Your task to perform on an android device: Search for sony triple a on ebay.com, select the first entry, and add it to the cart. Image 0: 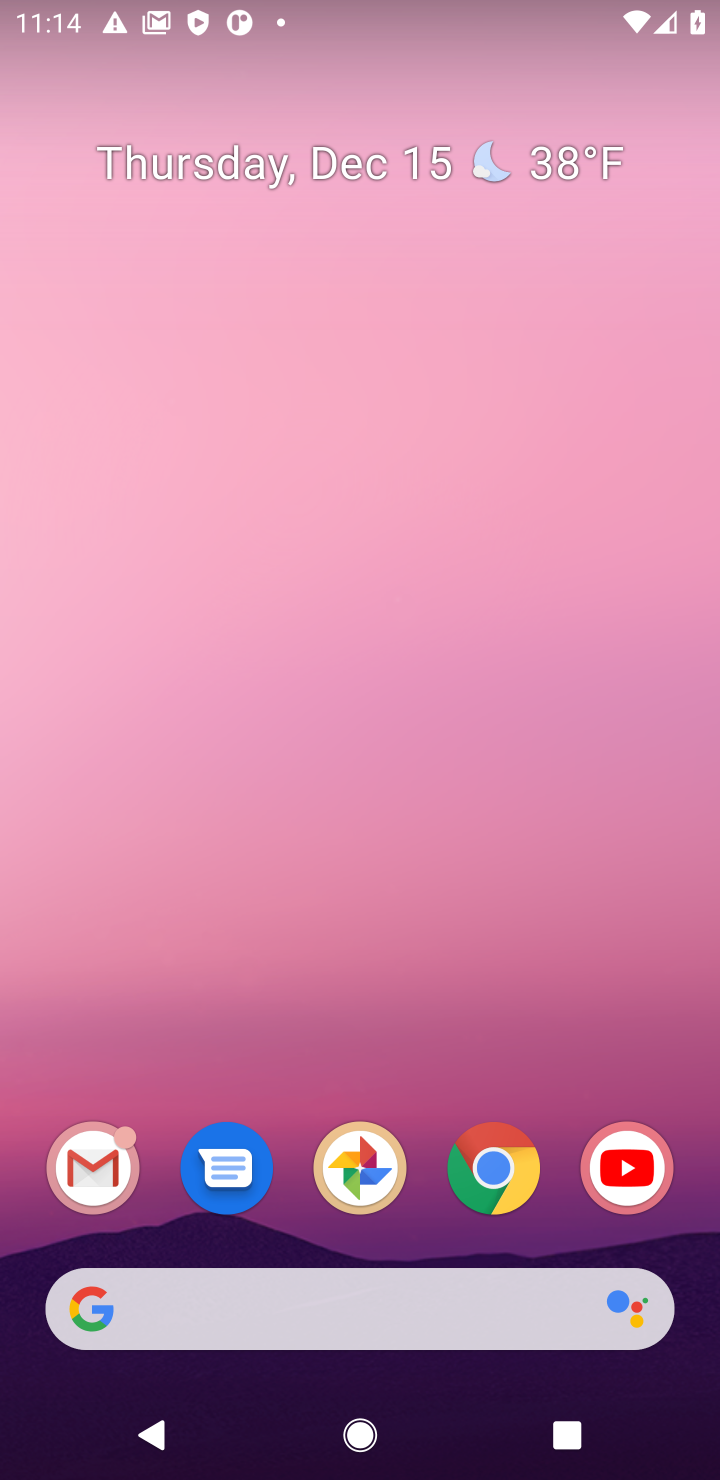
Step 0: click (487, 1173)
Your task to perform on an android device: Search for sony triple a on ebay.com, select the first entry, and add it to the cart. Image 1: 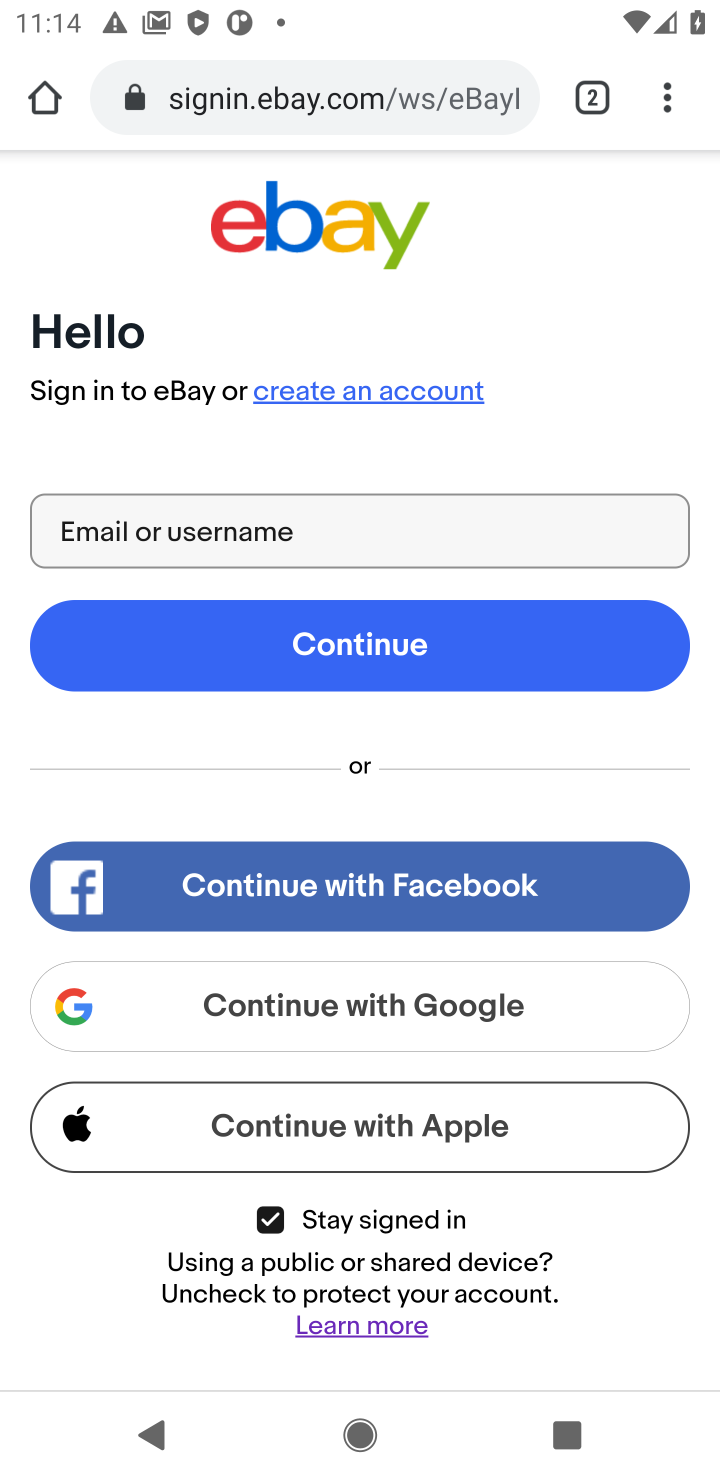
Step 1: click (380, 230)
Your task to perform on an android device: Search for sony triple a on ebay.com, select the first entry, and add it to the cart. Image 2: 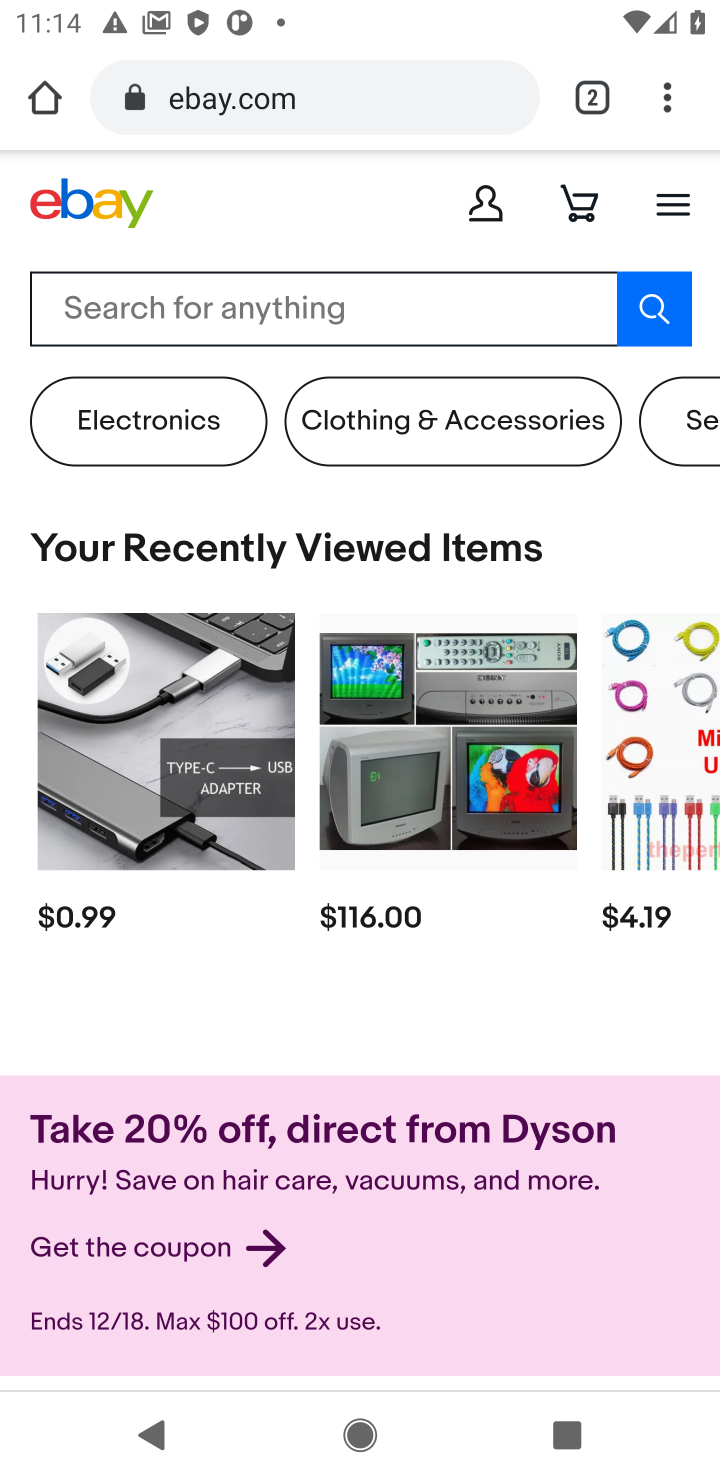
Step 2: click (316, 314)
Your task to perform on an android device: Search for sony triple a on ebay.com, select the first entry, and add it to the cart. Image 3: 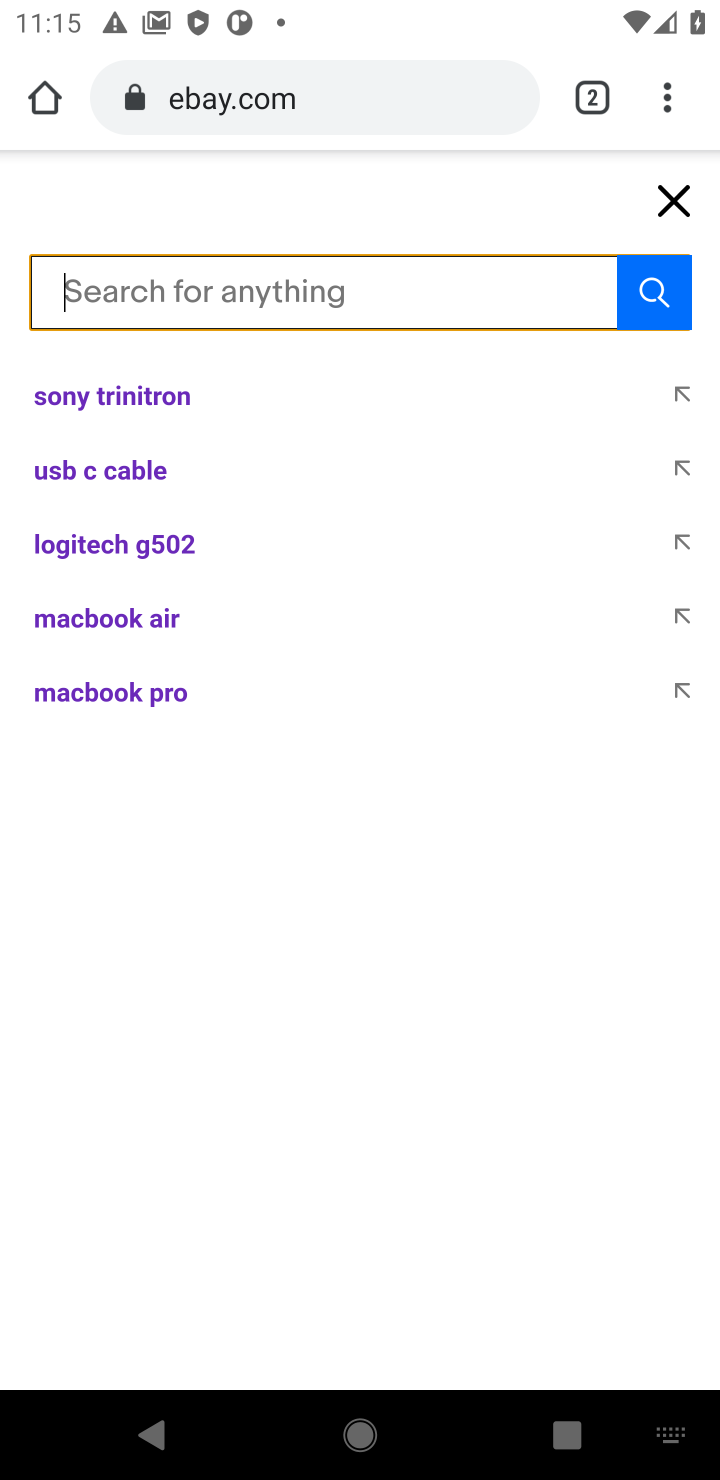
Step 3: type "sony triple a"
Your task to perform on an android device: Search for sony triple a on ebay.com, select the first entry, and add it to the cart. Image 4: 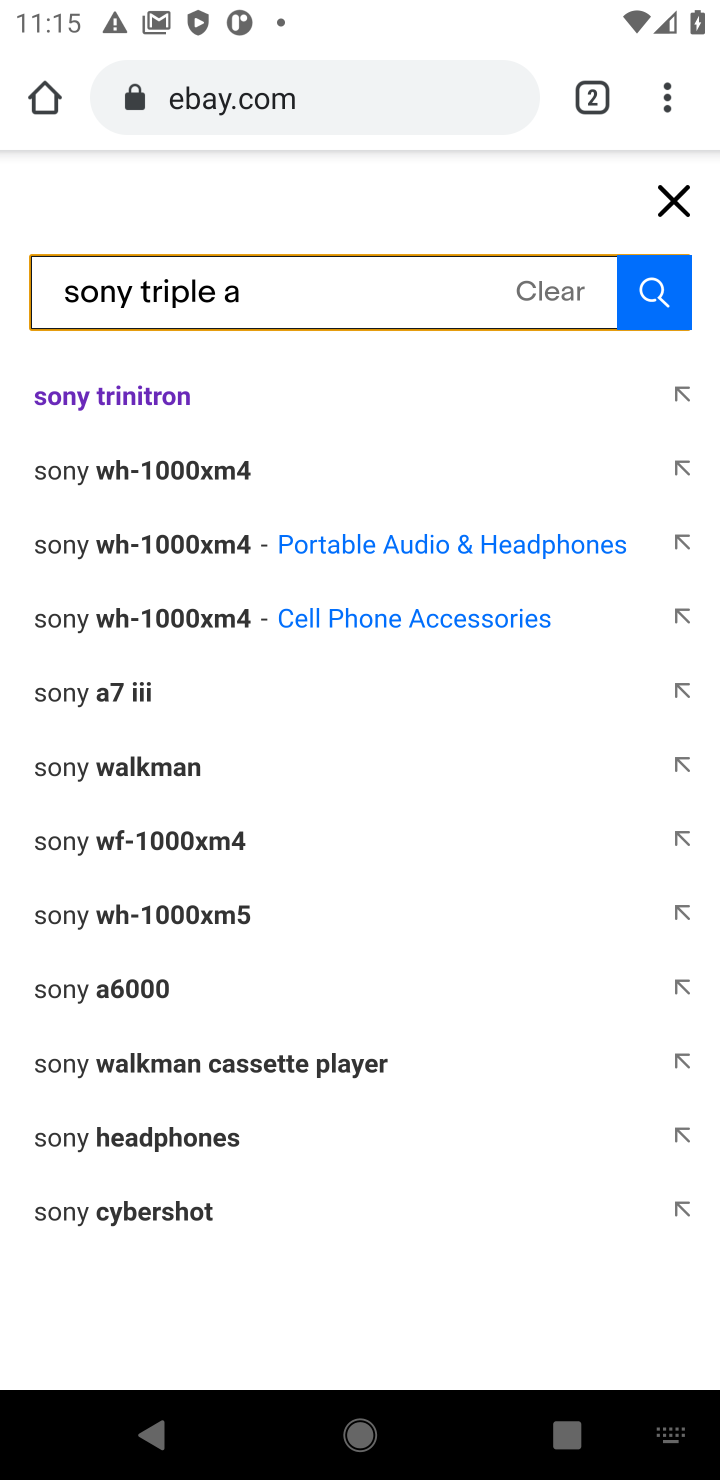
Step 4: click (205, 405)
Your task to perform on an android device: Search for sony triple a on ebay.com, select the first entry, and add it to the cart. Image 5: 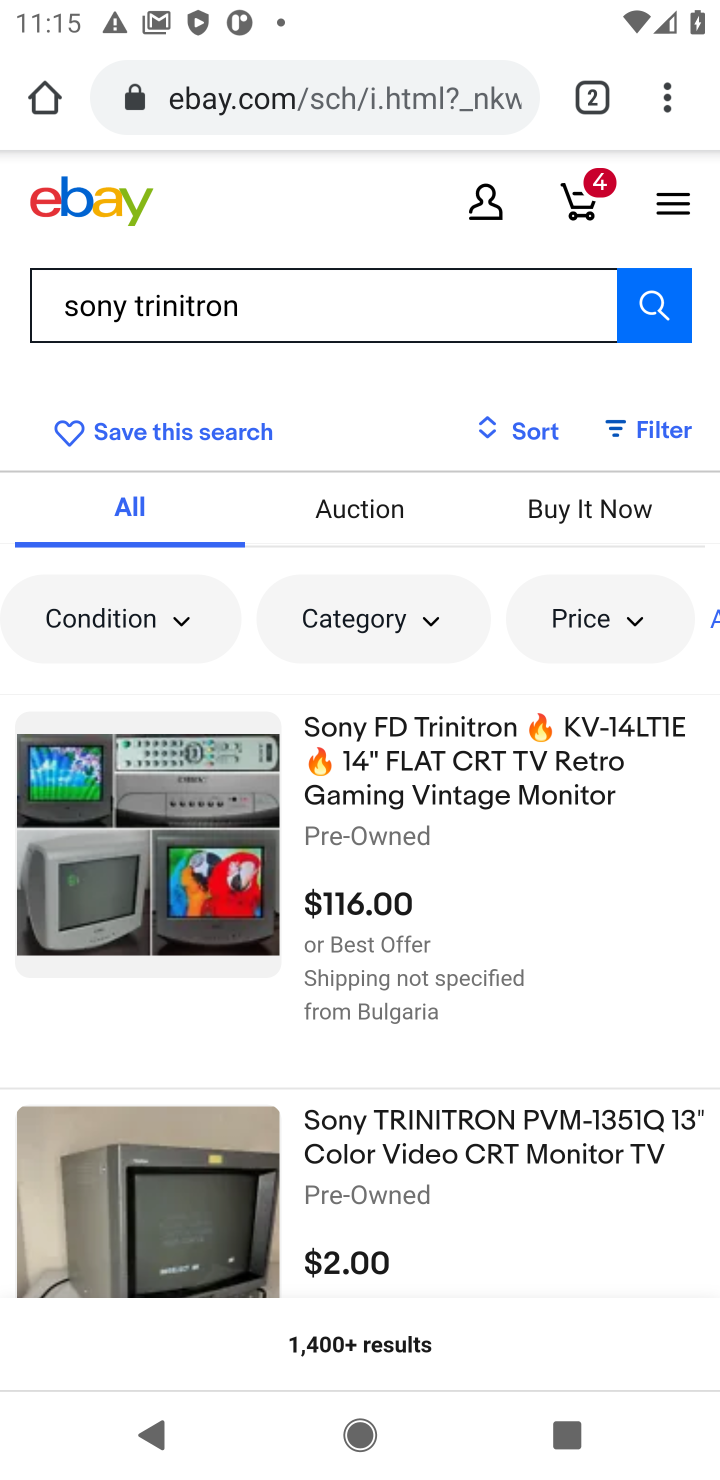
Step 5: click (540, 809)
Your task to perform on an android device: Search for sony triple a on ebay.com, select the first entry, and add it to the cart. Image 6: 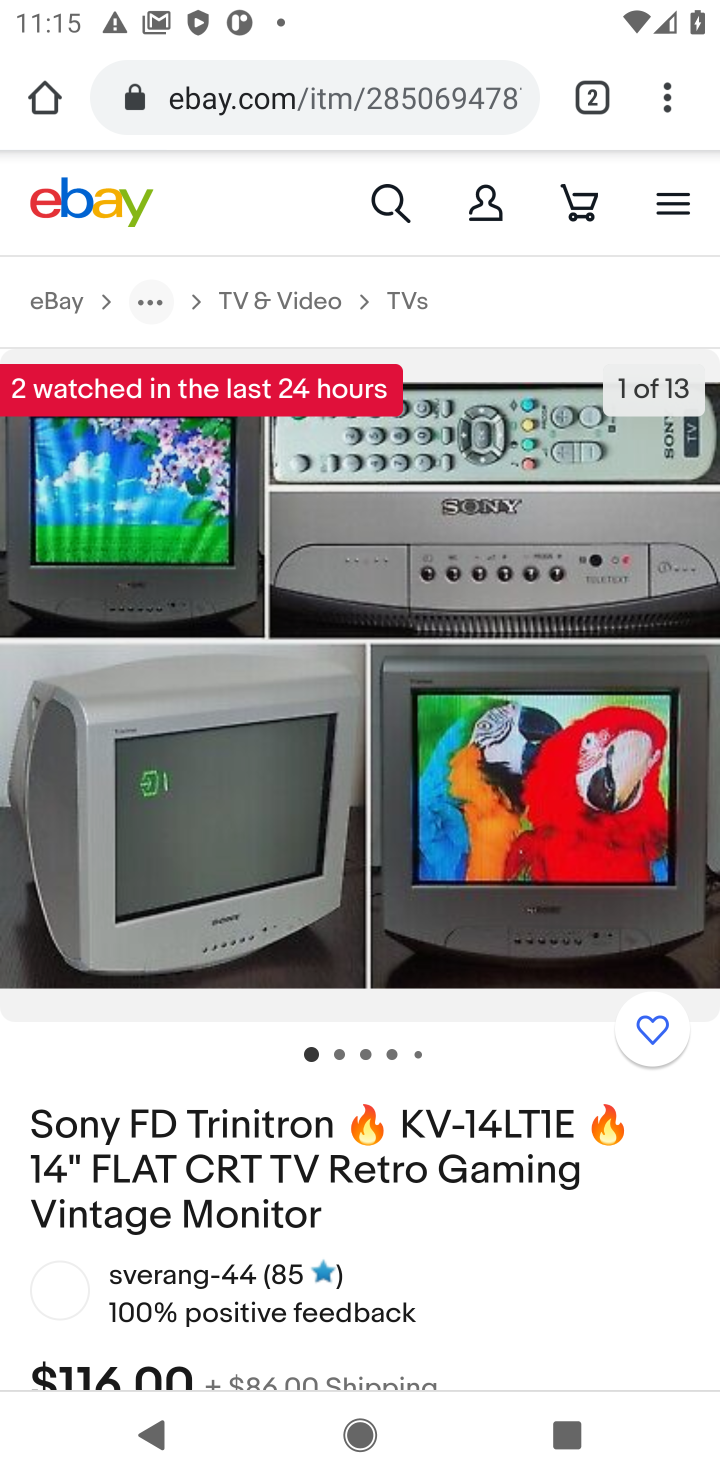
Step 6: drag from (525, 1219) to (404, 325)
Your task to perform on an android device: Search for sony triple a on ebay.com, select the first entry, and add it to the cart. Image 7: 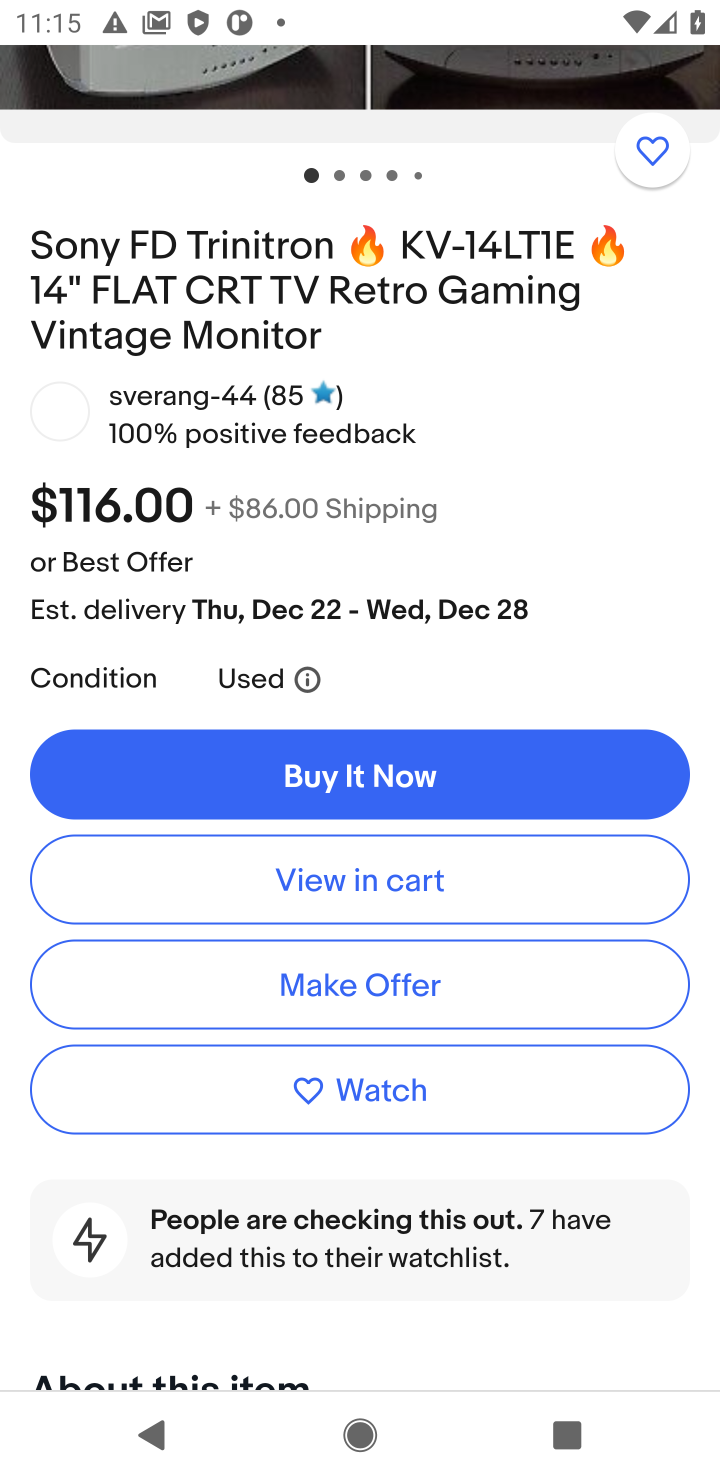
Step 7: click (377, 882)
Your task to perform on an android device: Search for sony triple a on ebay.com, select the first entry, and add it to the cart. Image 8: 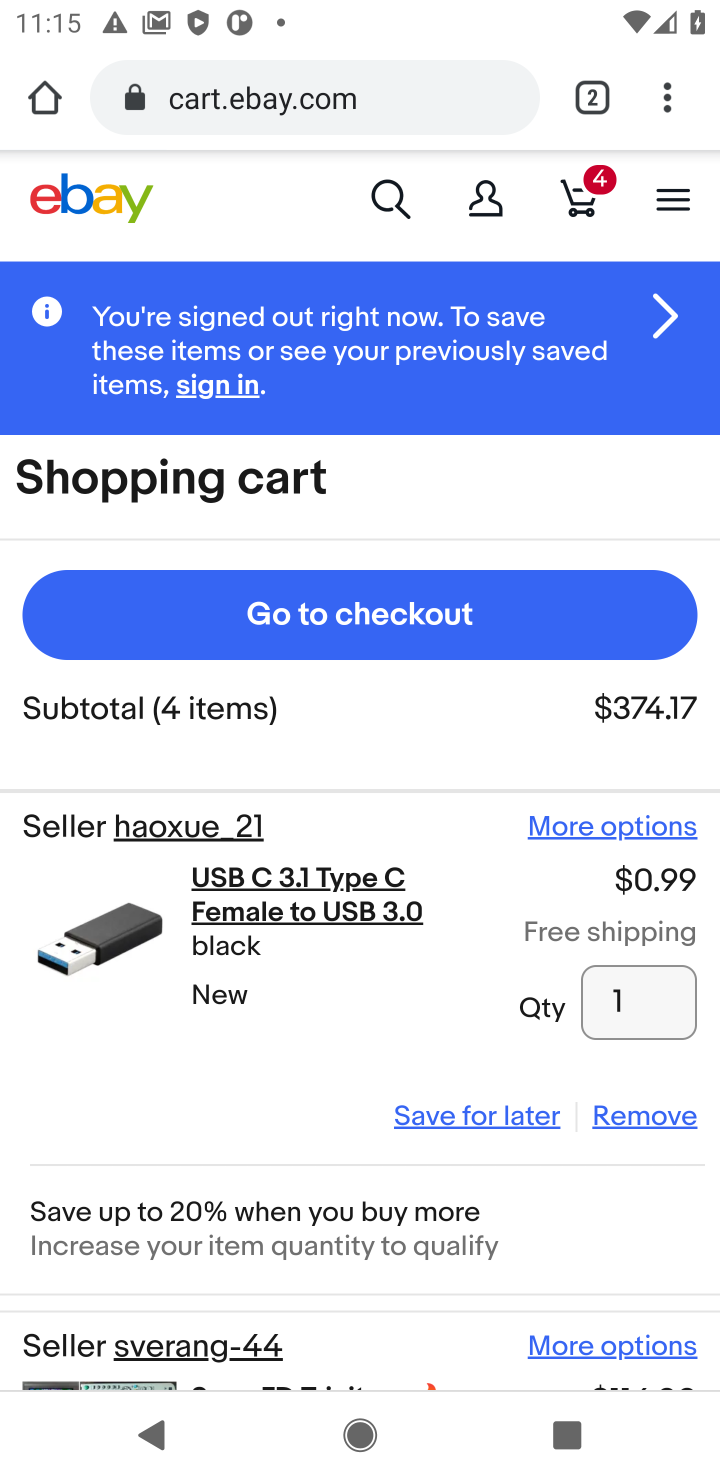
Step 8: click (380, 641)
Your task to perform on an android device: Search for sony triple a on ebay.com, select the first entry, and add it to the cart. Image 9: 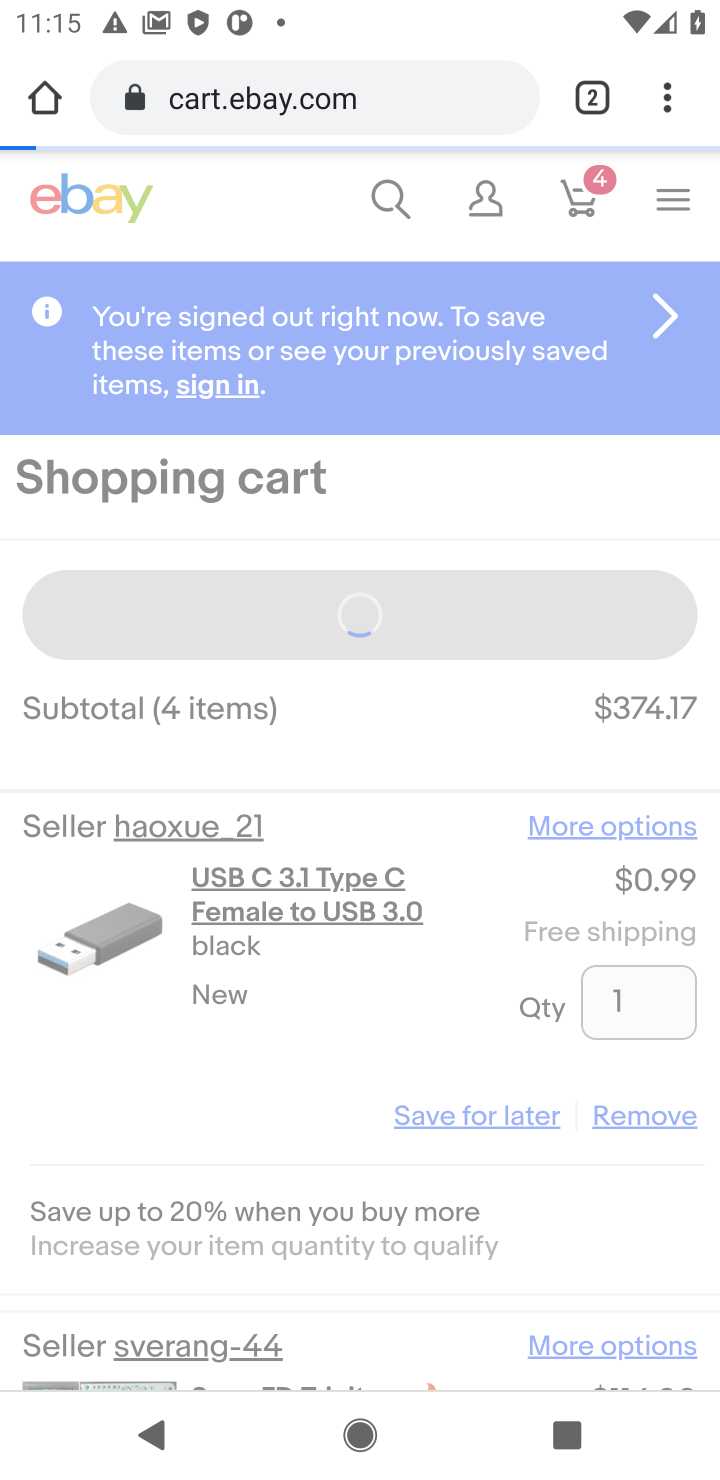
Step 9: task complete